Your task to perform on an android device: Open Google Chrome and click the shortcut for Amazon.com Image 0: 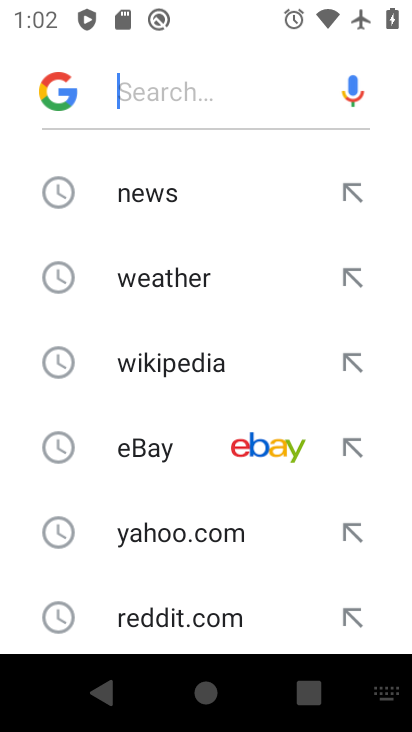
Step 0: press home button
Your task to perform on an android device: Open Google Chrome and click the shortcut for Amazon.com Image 1: 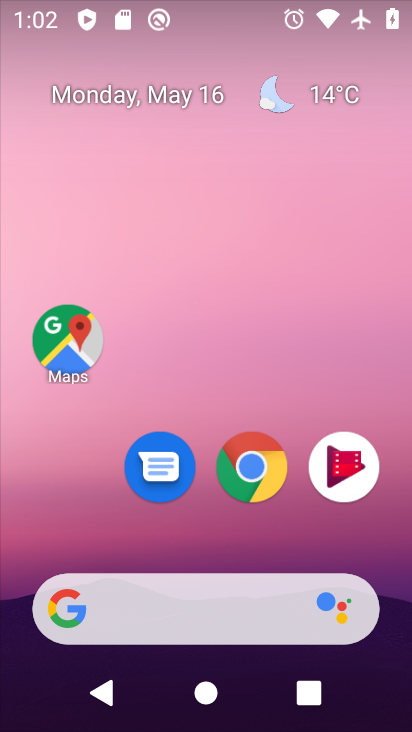
Step 1: click (242, 468)
Your task to perform on an android device: Open Google Chrome and click the shortcut for Amazon.com Image 2: 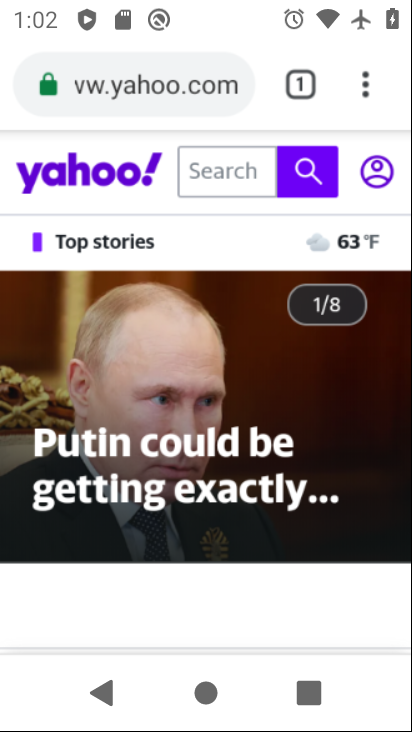
Step 2: click (358, 82)
Your task to perform on an android device: Open Google Chrome and click the shortcut for Amazon.com Image 3: 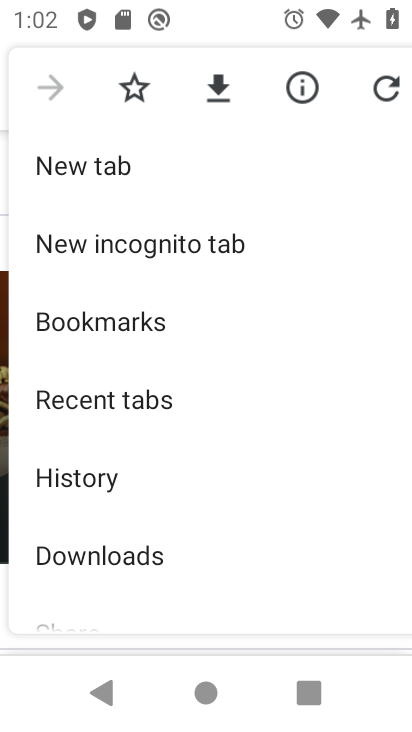
Step 3: click (54, 168)
Your task to perform on an android device: Open Google Chrome and click the shortcut for Amazon.com Image 4: 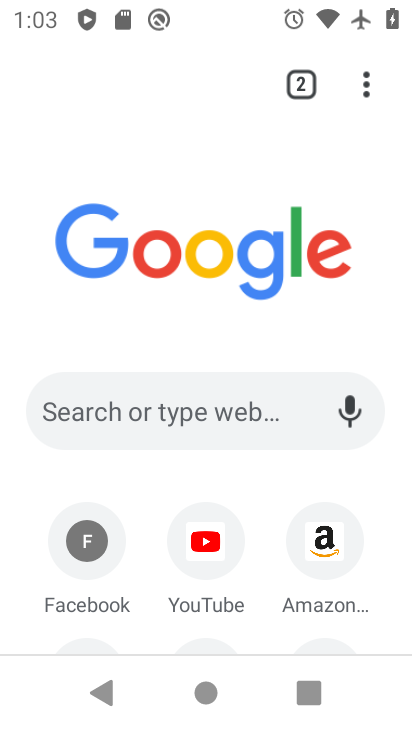
Step 4: click (335, 540)
Your task to perform on an android device: Open Google Chrome and click the shortcut for Amazon.com Image 5: 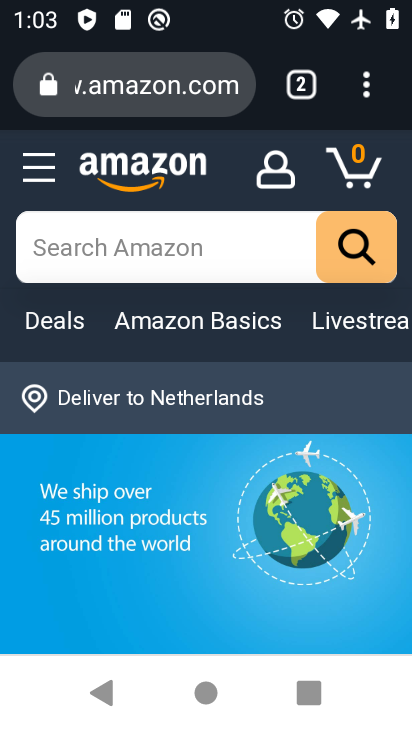
Step 5: task complete